Your task to perform on an android device: Go to display settings Image 0: 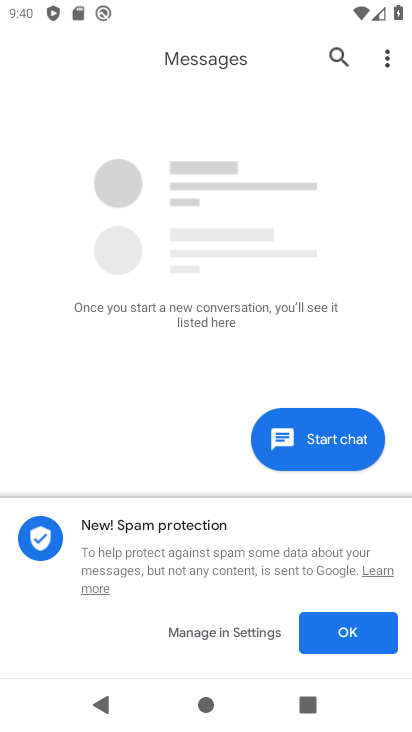
Step 0: press back button
Your task to perform on an android device: Go to display settings Image 1: 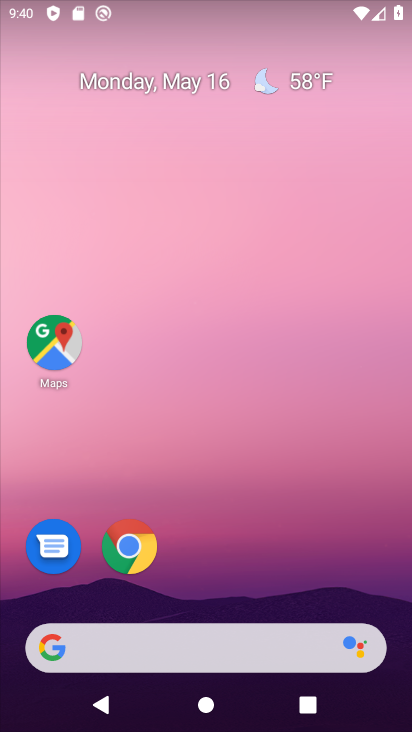
Step 1: drag from (237, 543) to (213, 176)
Your task to perform on an android device: Go to display settings Image 2: 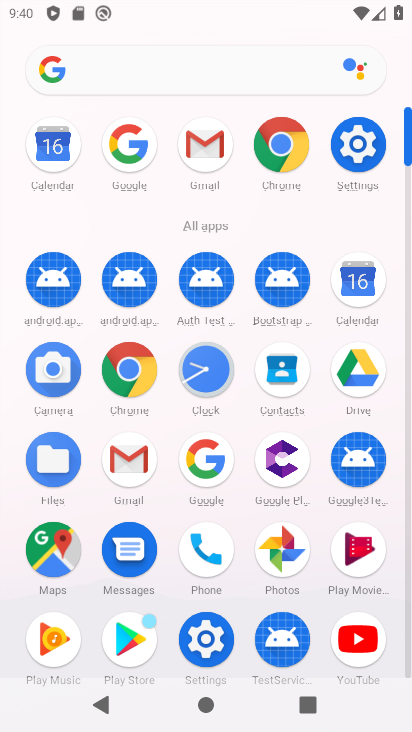
Step 2: click (356, 143)
Your task to perform on an android device: Go to display settings Image 3: 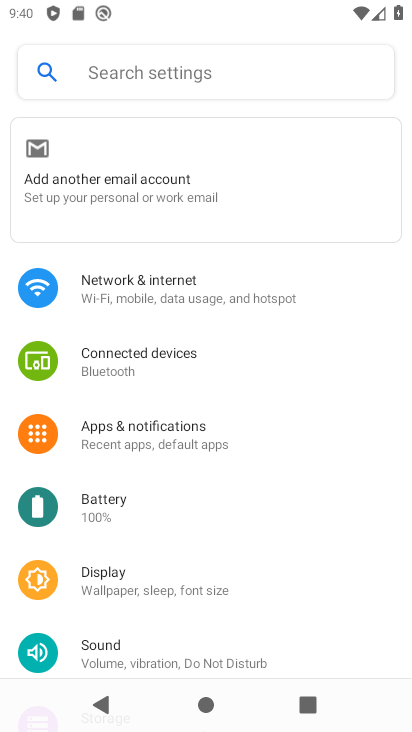
Step 3: drag from (169, 476) to (204, 392)
Your task to perform on an android device: Go to display settings Image 4: 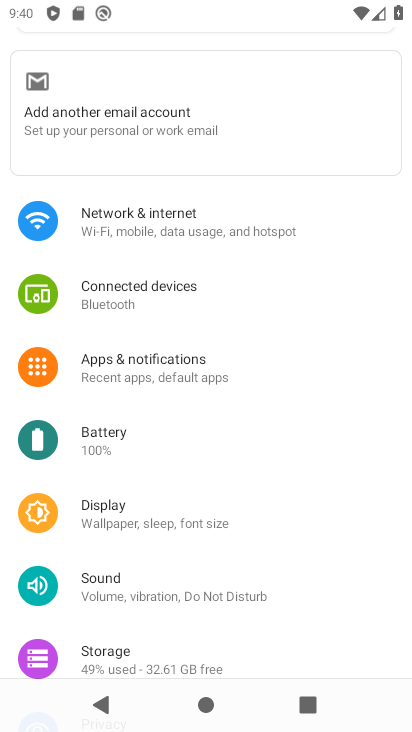
Step 4: click (135, 525)
Your task to perform on an android device: Go to display settings Image 5: 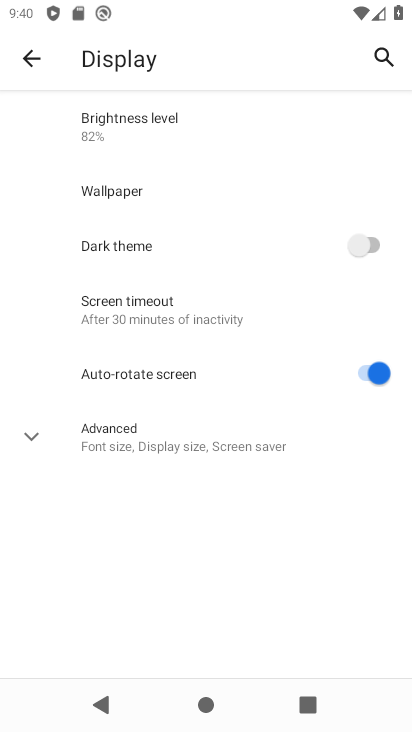
Step 5: task complete